Your task to perform on an android device: turn off wifi Image 0: 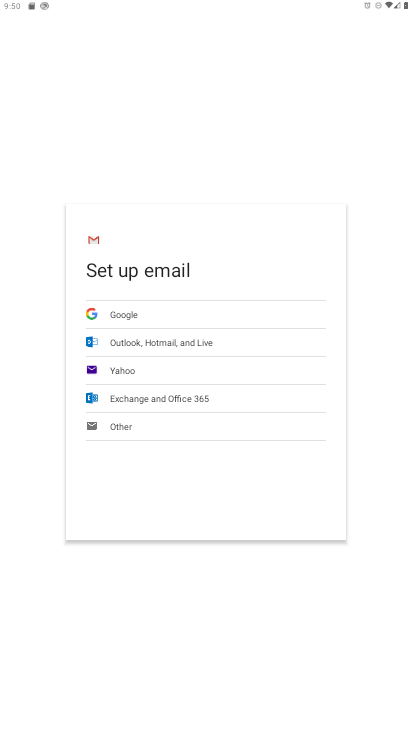
Step 0: press home button
Your task to perform on an android device: turn off wifi Image 1: 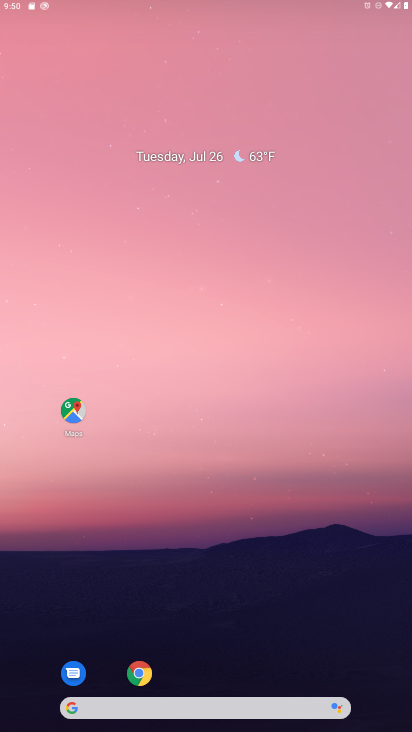
Step 1: drag from (380, 676) to (112, 71)
Your task to perform on an android device: turn off wifi Image 2: 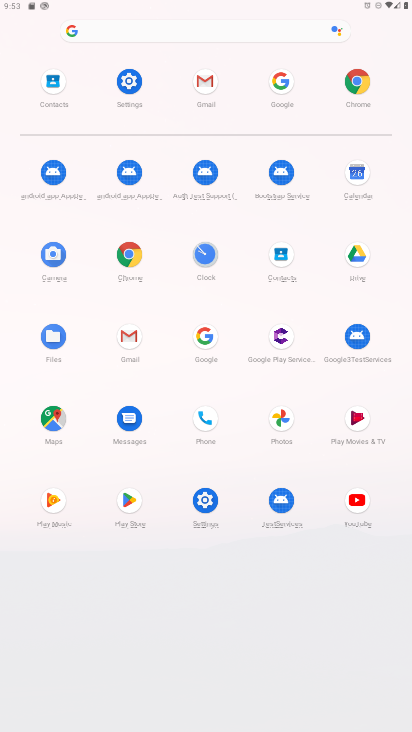
Step 2: drag from (188, 6) to (164, 714)
Your task to perform on an android device: turn off wifi Image 3: 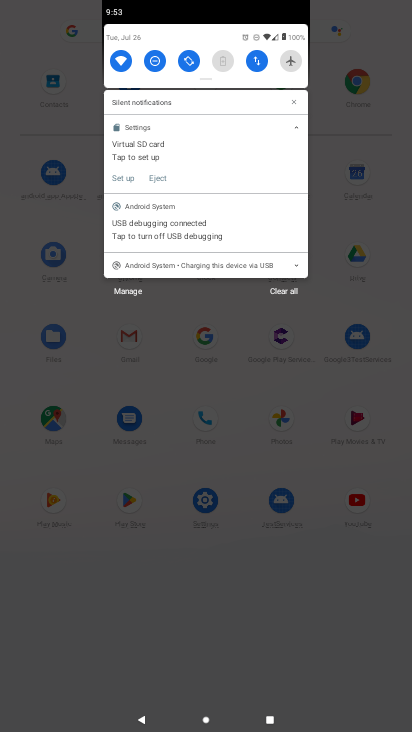
Step 3: click (120, 58)
Your task to perform on an android device: turn off wifi Image 4: 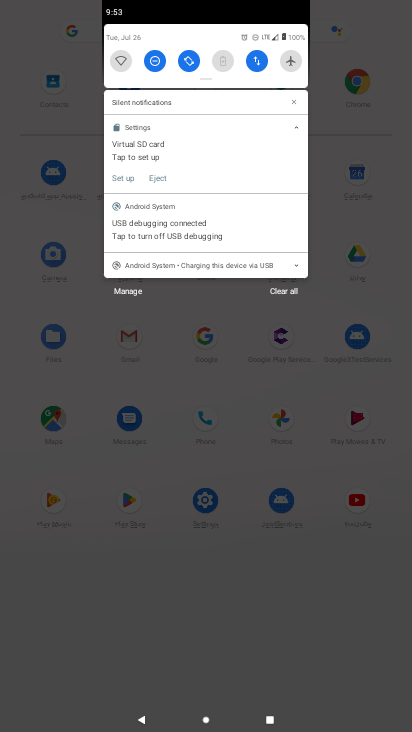
Step 4: task complete